Your task to perform on an android device: turn off improve location accuracy Image 0: 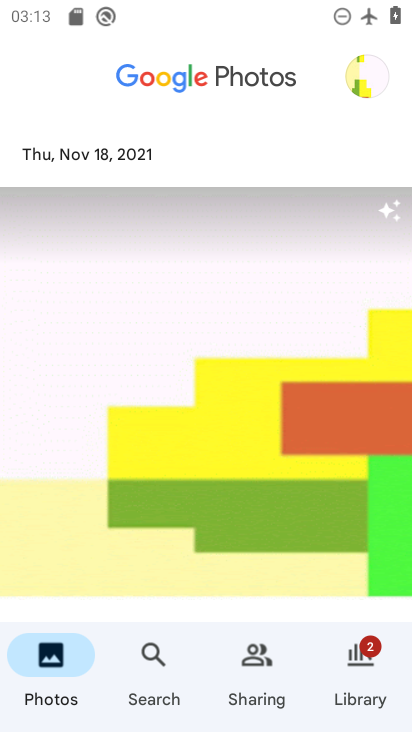
Step 0: press home button
Your task to perform on an android device: turn off improve location accuracy Image 1: 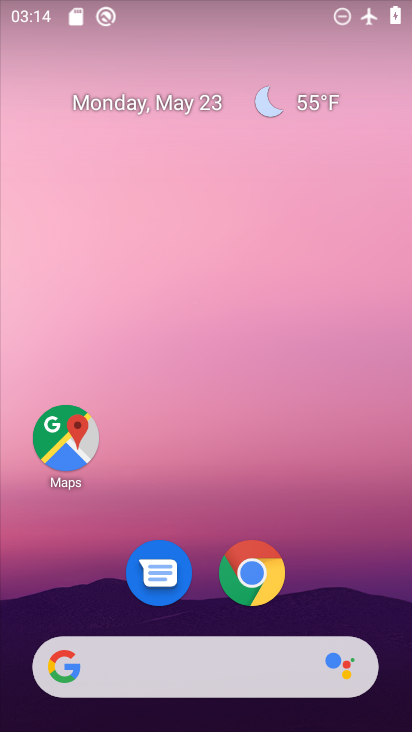
Step 1: drag from (339, 583) to (279, 49)
Your task to perform on an android device: turn off improve location accuracy Image 2: 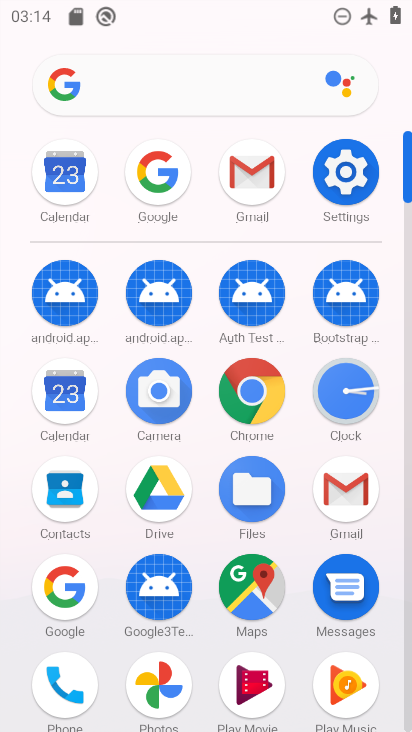
Step 2: click (353, 168)
Your task to perform on an android device: turn off improve location accuracy Image 3: 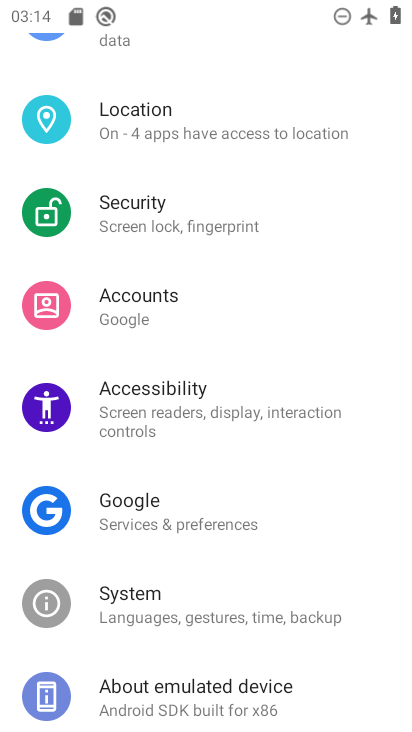
Step 3: click (213, 134)
Your task to perform on an android device: turn off improve location accuracy Image 4: 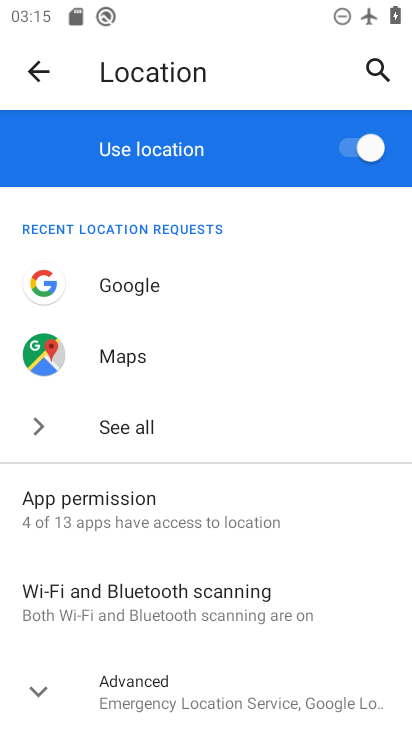
Step 4: click (259, 687)
Your task to perform on an android device: turn off improve location accuracy Image 5: 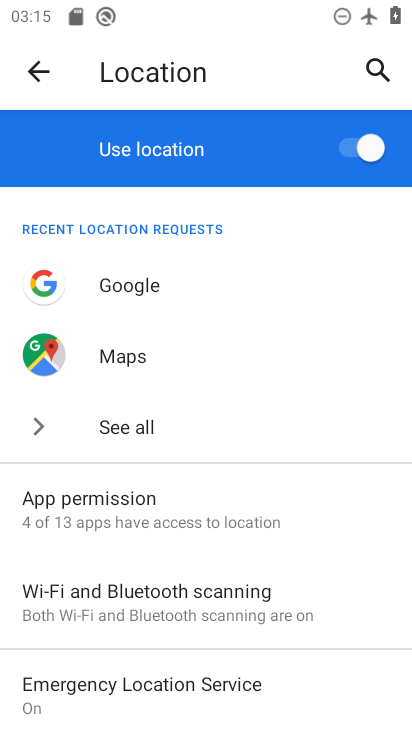
Step 5: drag from (226, 704) to (276, 379)
Your task to perform on an android device: turn off improve location accuracy Image 6: 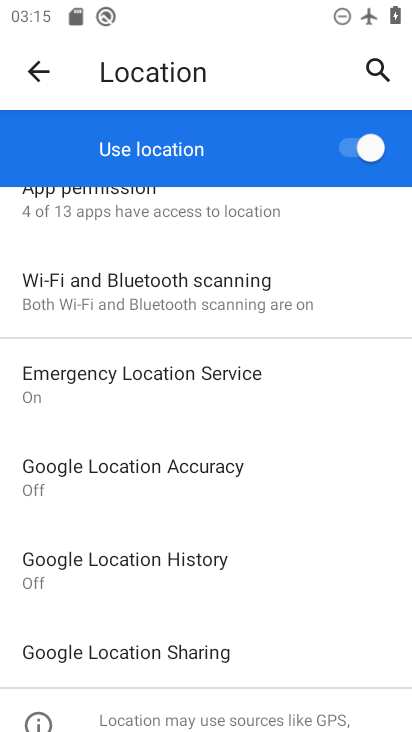
Step 6: click (215, 480)
Your task to perform on an android device: turn off improve location accuracy Image 7: 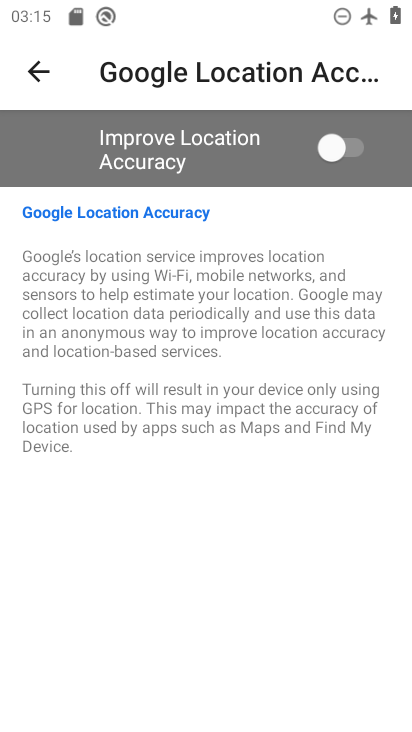
Step 7: task complete